Your task to perform on an android device: Open eBay Image 0: 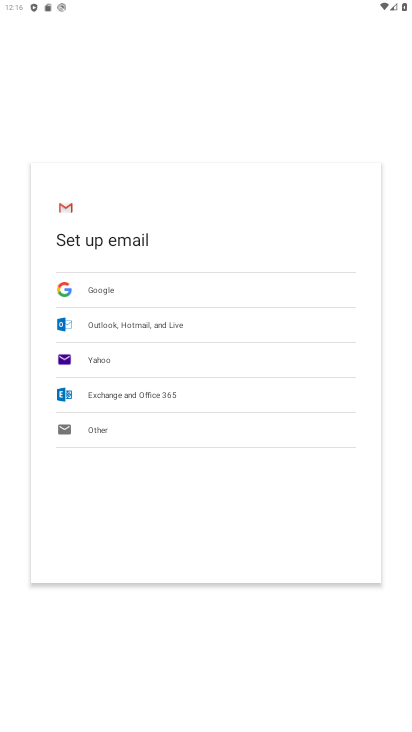
Step 0: press home button
Your task to perform on an android device: Open eBay Image 1: 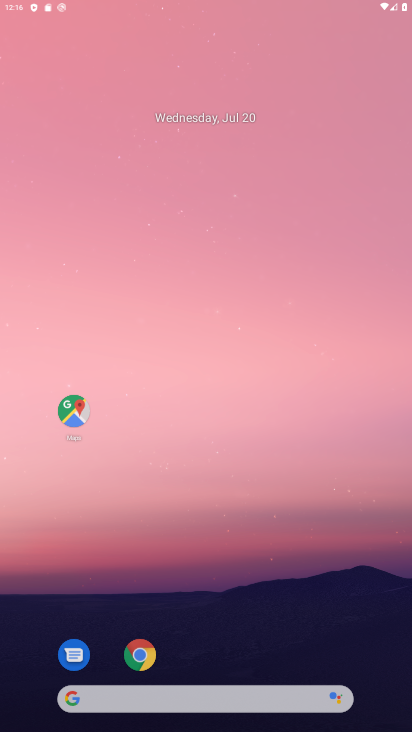
Step 1: drag from (394, 678) to (300, 68)
Your task to perform on an android device: Open eBay Image 2: 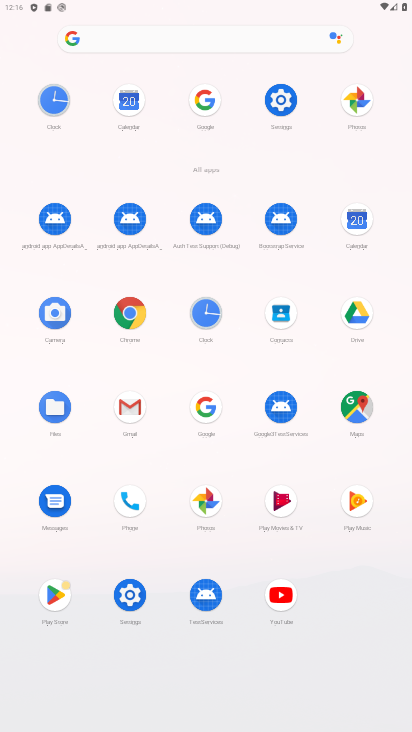
Step 2: click (197, 411)
Your task to perform on an android device: Open eBay Image 3: 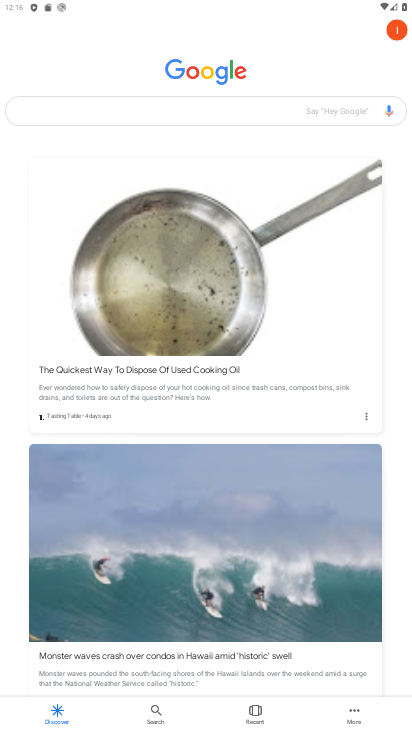
Step 3: click (163, 114)
Your task to perform on an android device: Open eBay Image 4: 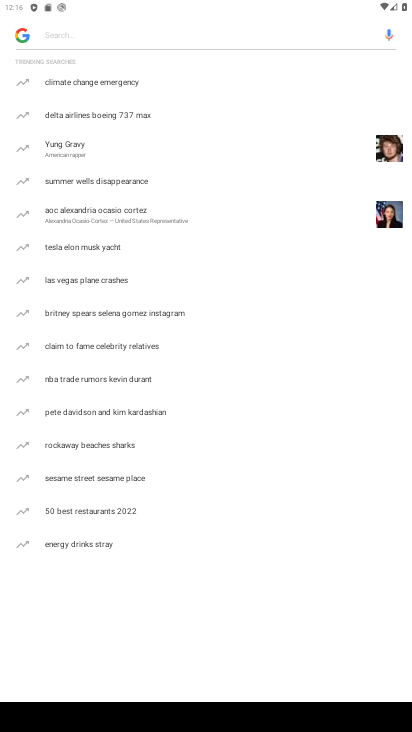
Step 4: type "eBay"
Your task to perform on an android device: Open eBay Image 5: 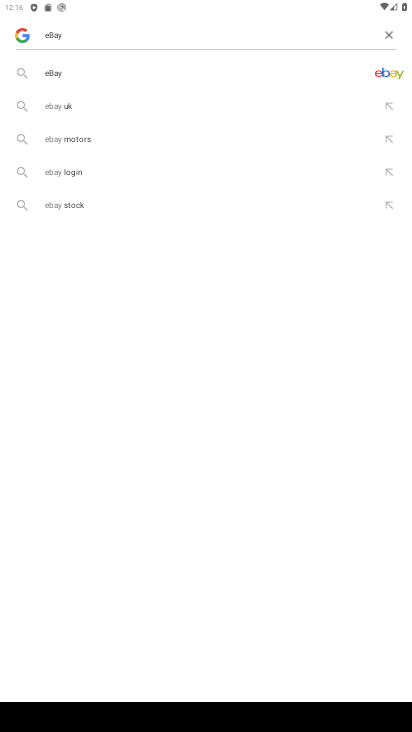
Step 5: click (63, 70)
Your task to perform on an android device: Open eBay Image 6: 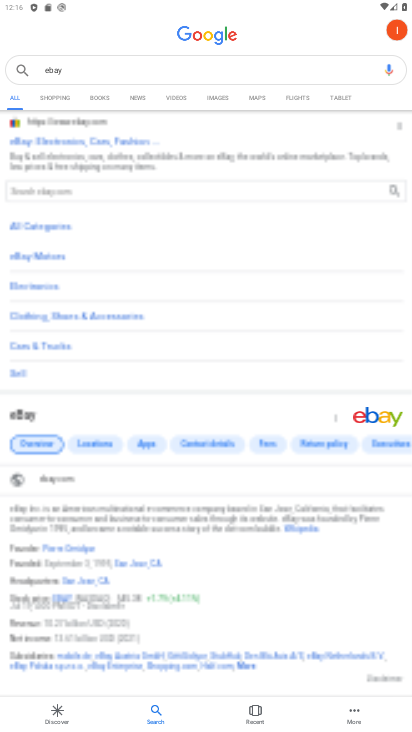
Step 6: task complete